Your task to perform on an android device: open device folders in google photos Image 0: 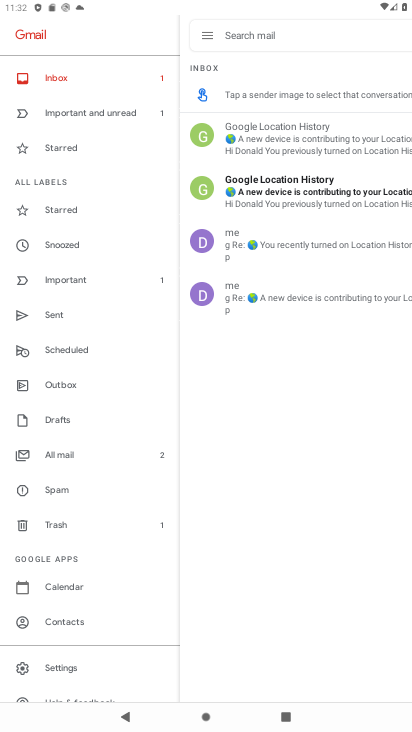
Step 0: press home button
Your task to perform on an android device: open device folders in google photos Image 1: 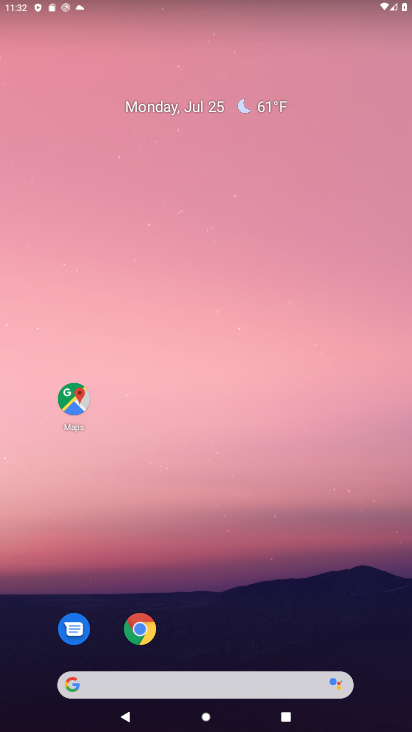
Step 1: drag from (202, 646) to (254, 249)
Your task to perform on an android device: open device folders in google photos Image 2: 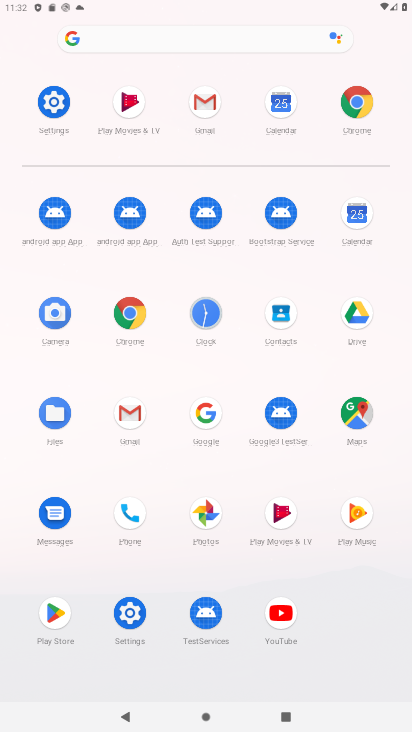
Step 2: click (201, 512)
Your task to perform on an android device: open device folders in google photos Image 3: 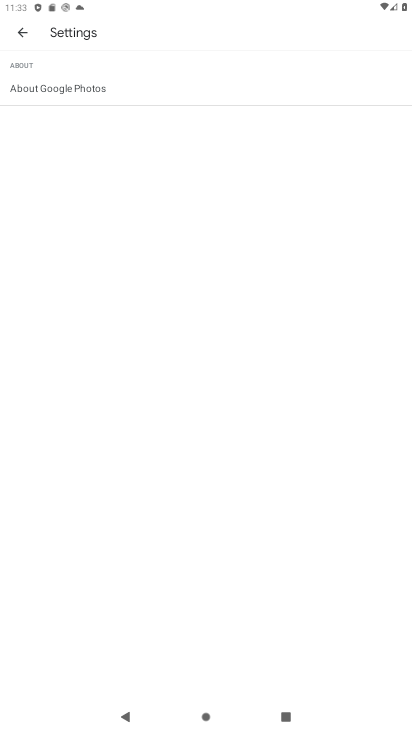
Step 3: drag from (264, 536) to (270, 431)
Your task to perform on an android device: open device folders in google photos Image 4: 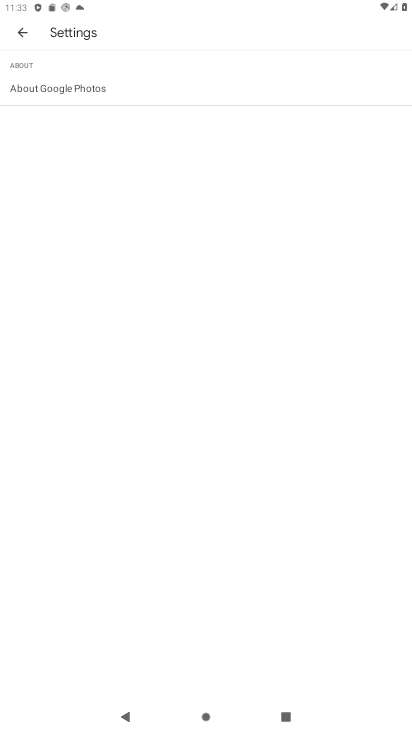
Step 4: click (22, 36)
Your task to perform on an android device: open device folders in google photos Image 5: 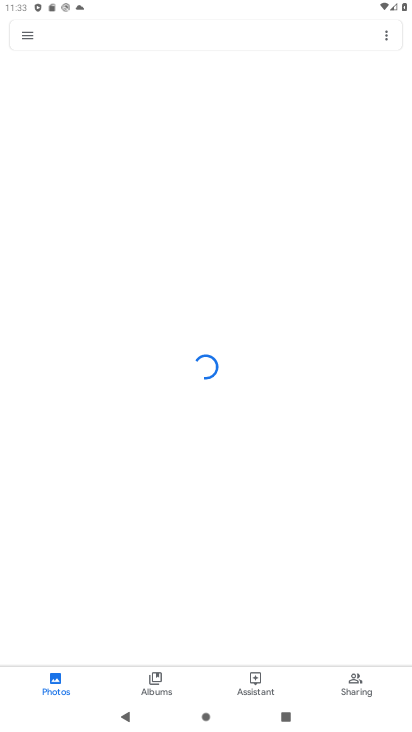
Step 5: click (21, 30)
Your task to perform on an android device: open device folders in google photos Image 6: 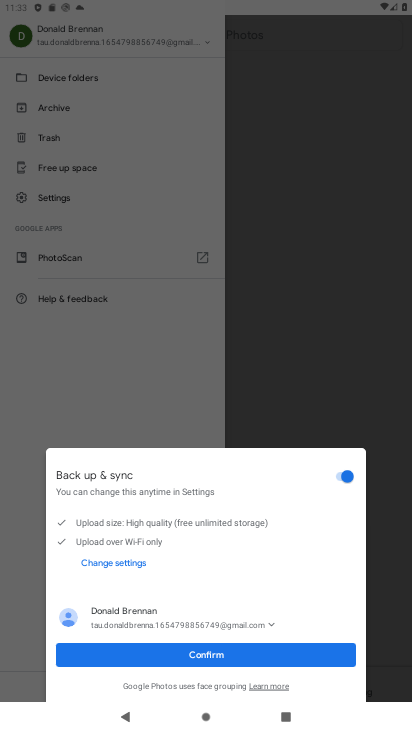
Step 6: click (204, 656)
Your task to perform on an android device: open device folders in google photos Image 7: 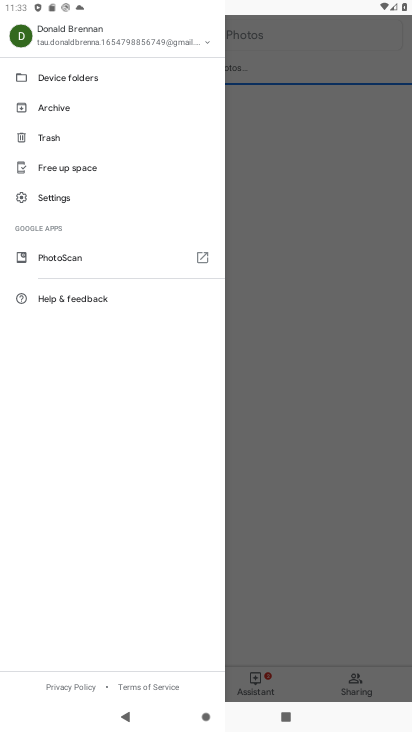
Step 7: click (71, 83)
Your task to perform on an android device: open device folders in google photos Image 8: 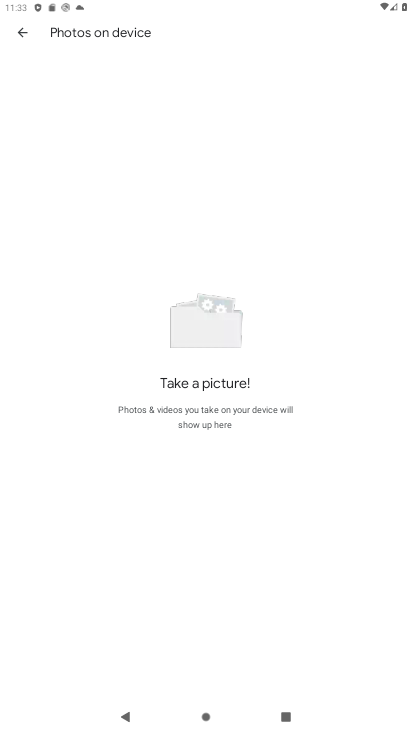
Step 8: task complete